Your task to perform on an android device: Play the last video I watched on Youtube Image 0: 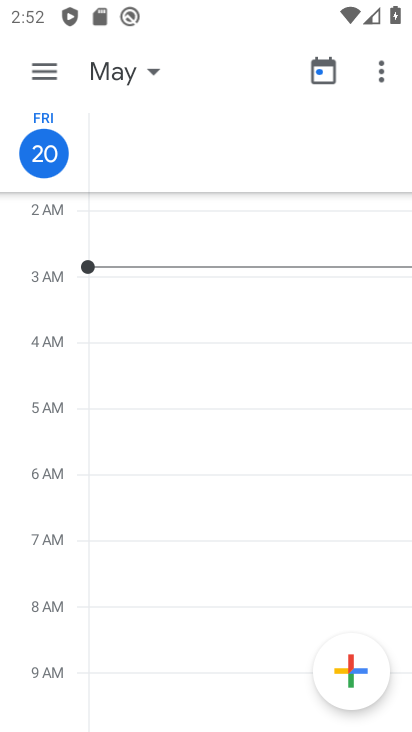
Step 0: press home button
Your task to perform on an android device: Play the last video I watched on Youtube Image 1: 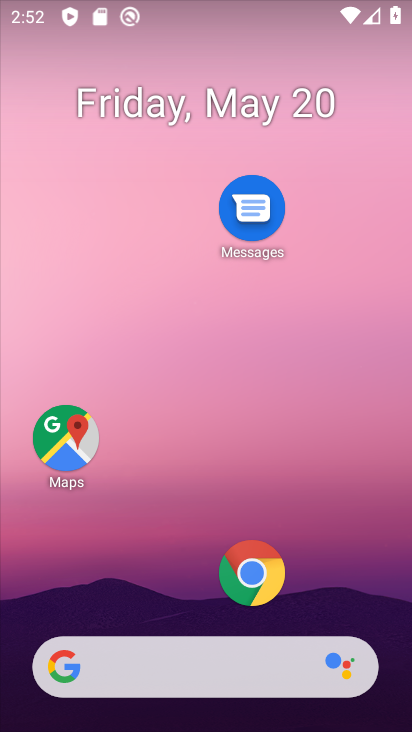
Step 1: drag from (173, 624) to (146, 514)
Your task to perform on an android device: Play the last video I watched on Youtube Image 2: 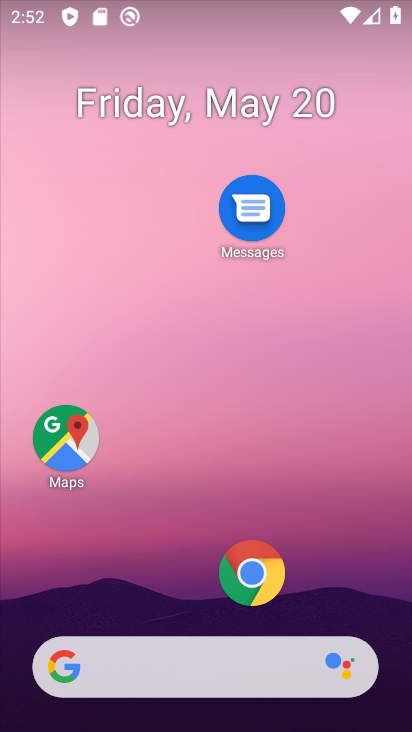
Step 2: drag from (165, 498) to (151, 19)
Your task to perform on an android device: Play the last video I watched on Youtube Image 3: 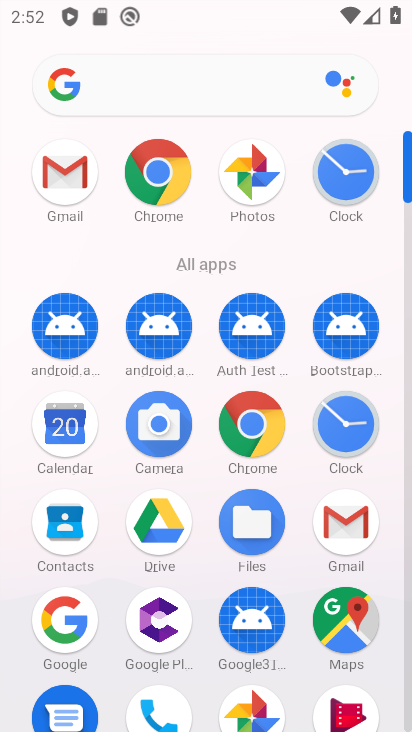
Step 3: drag from (201, 645) to (254, 42)
Your task to perform on an android device: Play the last video I watched on Youtube Image 4: 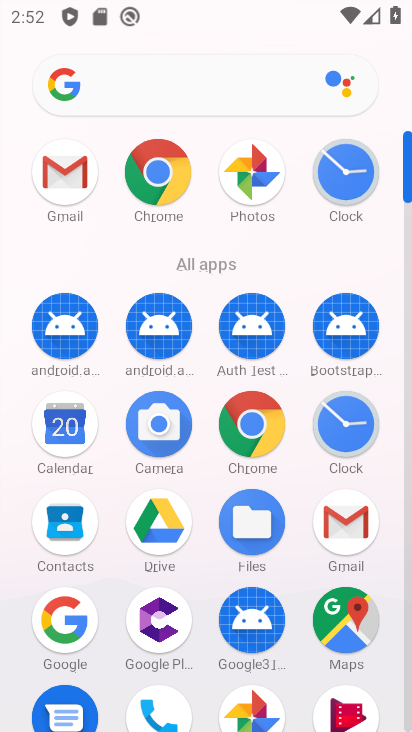
Step 4: drag from (216, 649) to (326, 34)
Your task to perform on an android device: Play the last video I watched on Youtube Image 5: 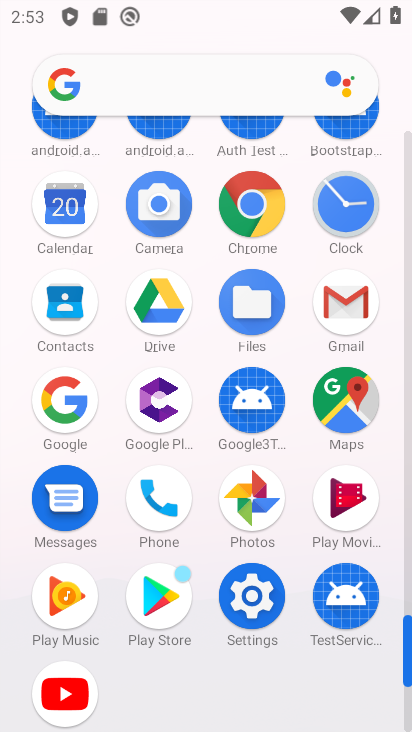
Step 5: click (70, 686)
Your task to perform on an android device: Play the last video I watched on Youtube Image 6: 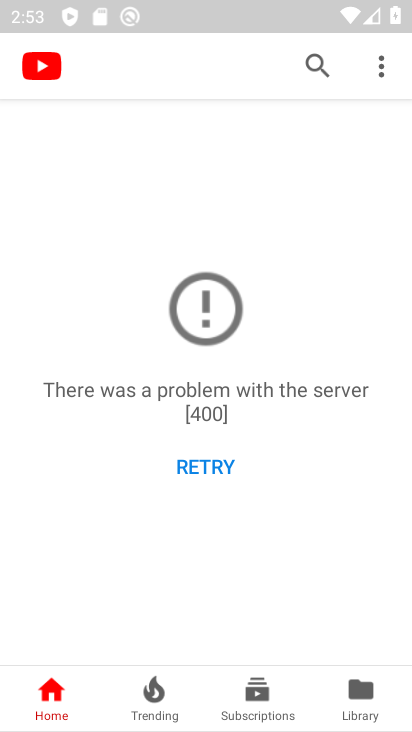
Step 6: click (343, 708)
Your task to perform on an android device: Play the last video I watched on Youtube Image 7: 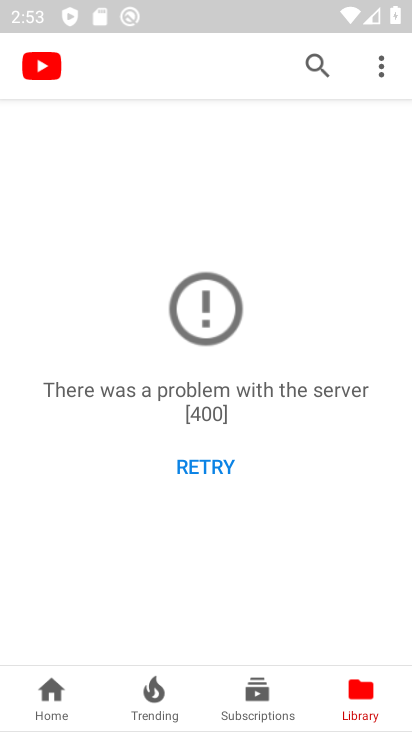
Step 7: task complete